Your task to perform on an android device: Play the new Selena Gomez video on YouTube Image 0: 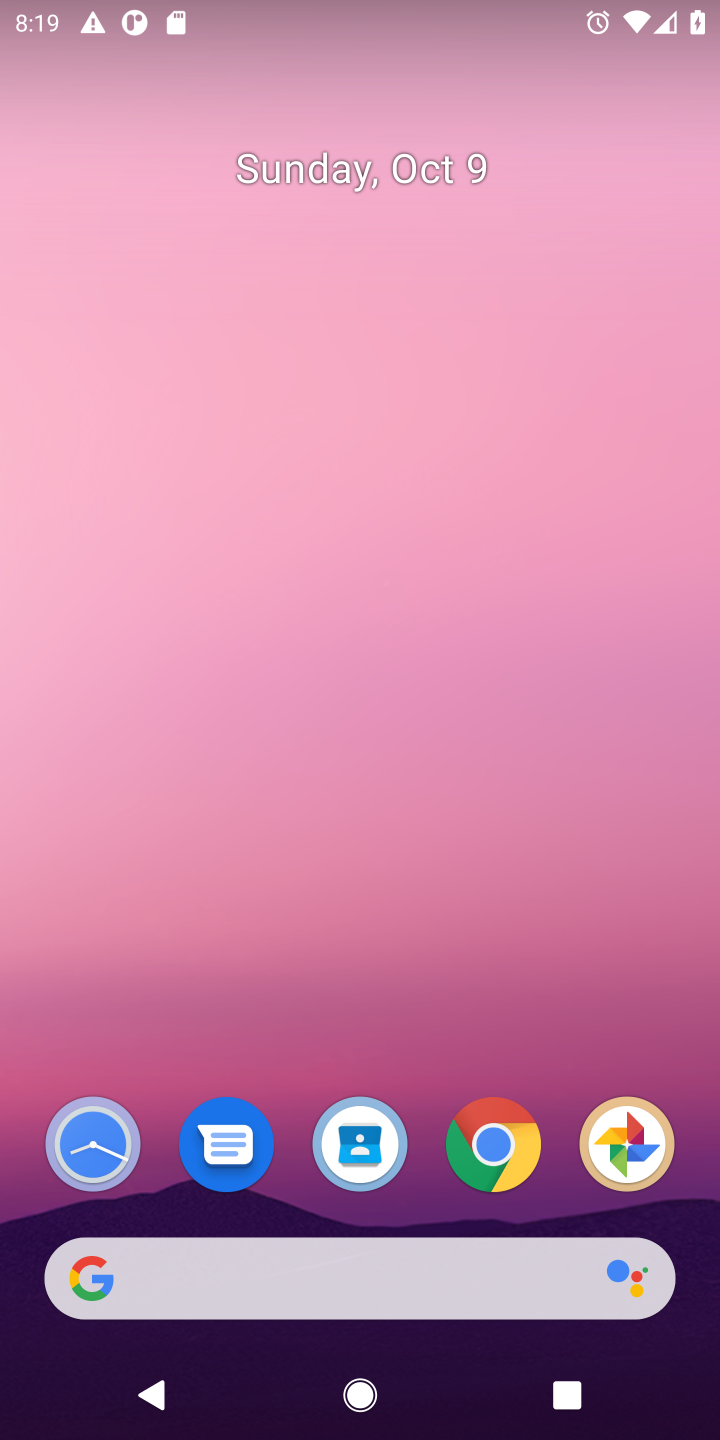
Step 0: press home button
Your task to perform on an android device: Play the new Selena Gomez video on YouTube Image 1: 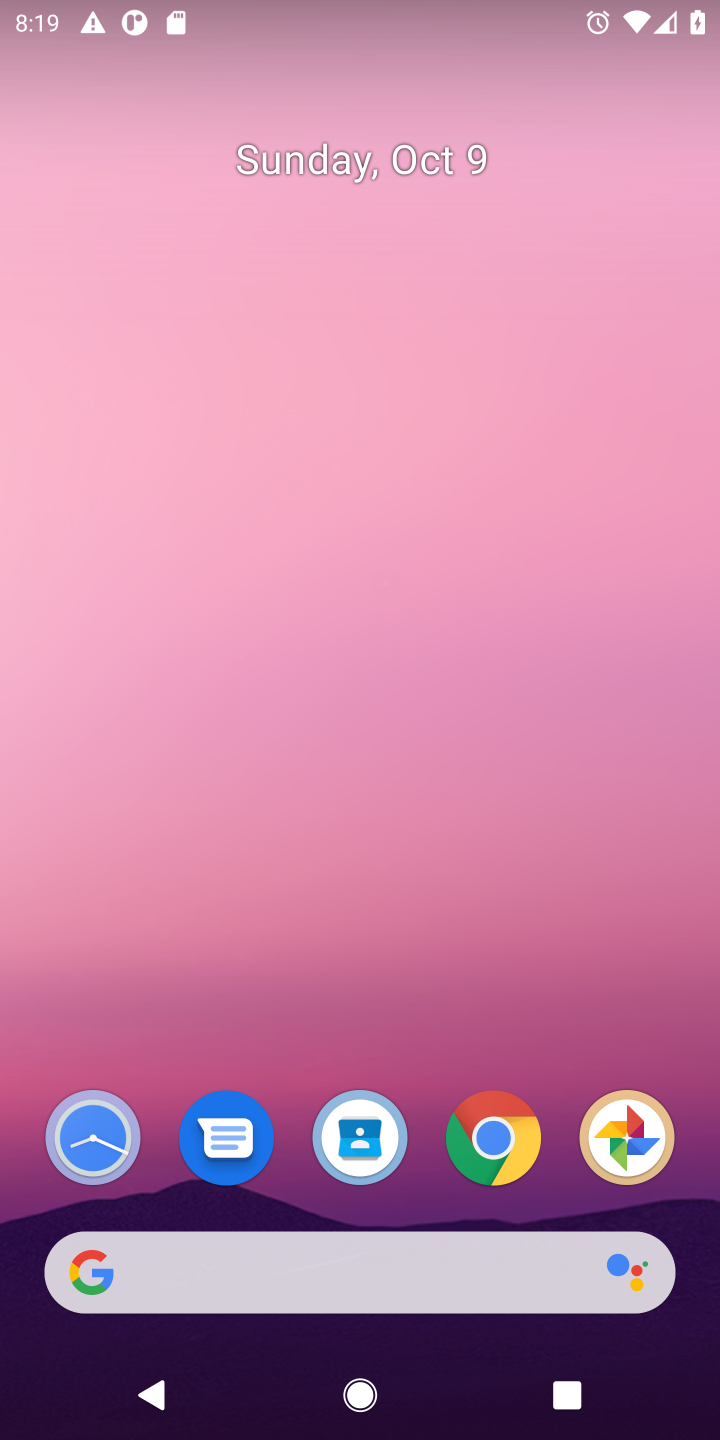
Step 1: drag from (313, 1202) to (332, 417)
Your task to perform on an android device: Play the new Selena Gomez video on YouTube Image 2: 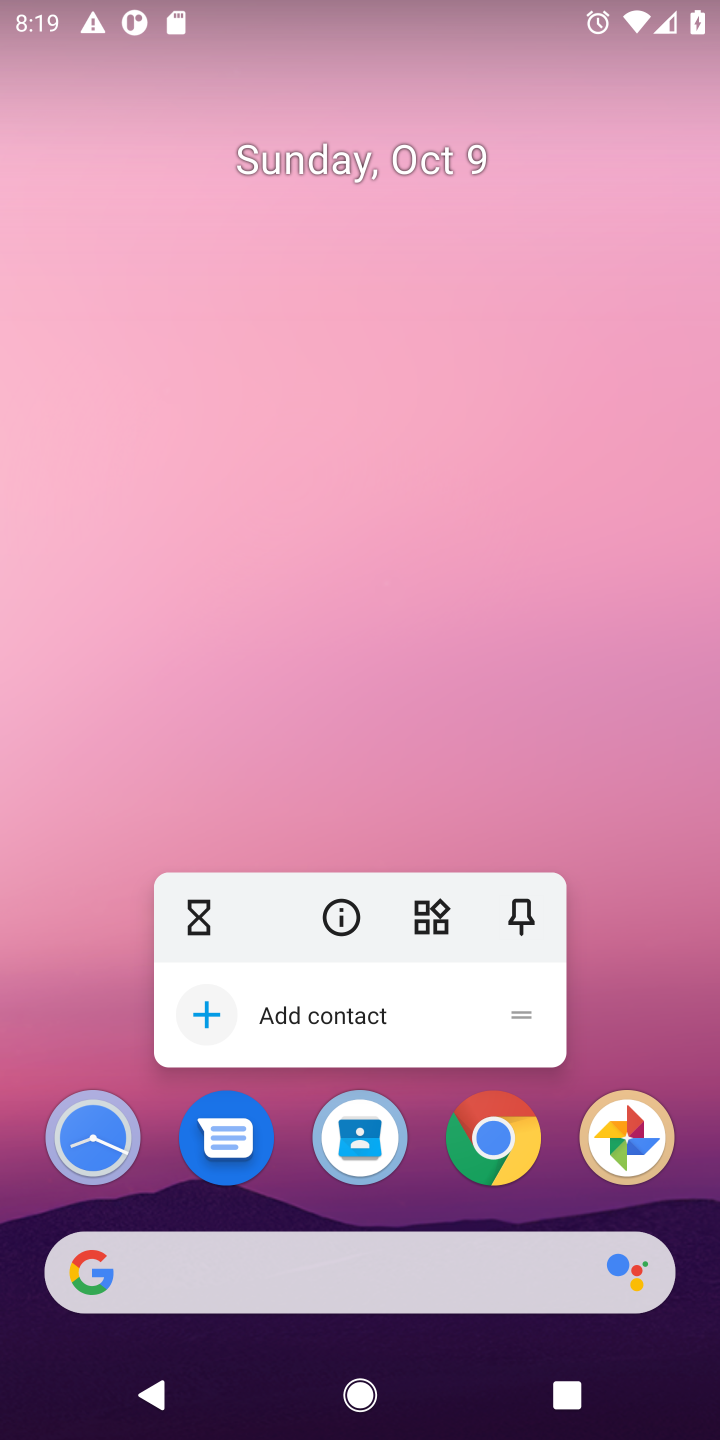
Step 2: click (611, 771)
Your task to perform on an android device: Play the new Selena Gomez video on YouTube Image 3: 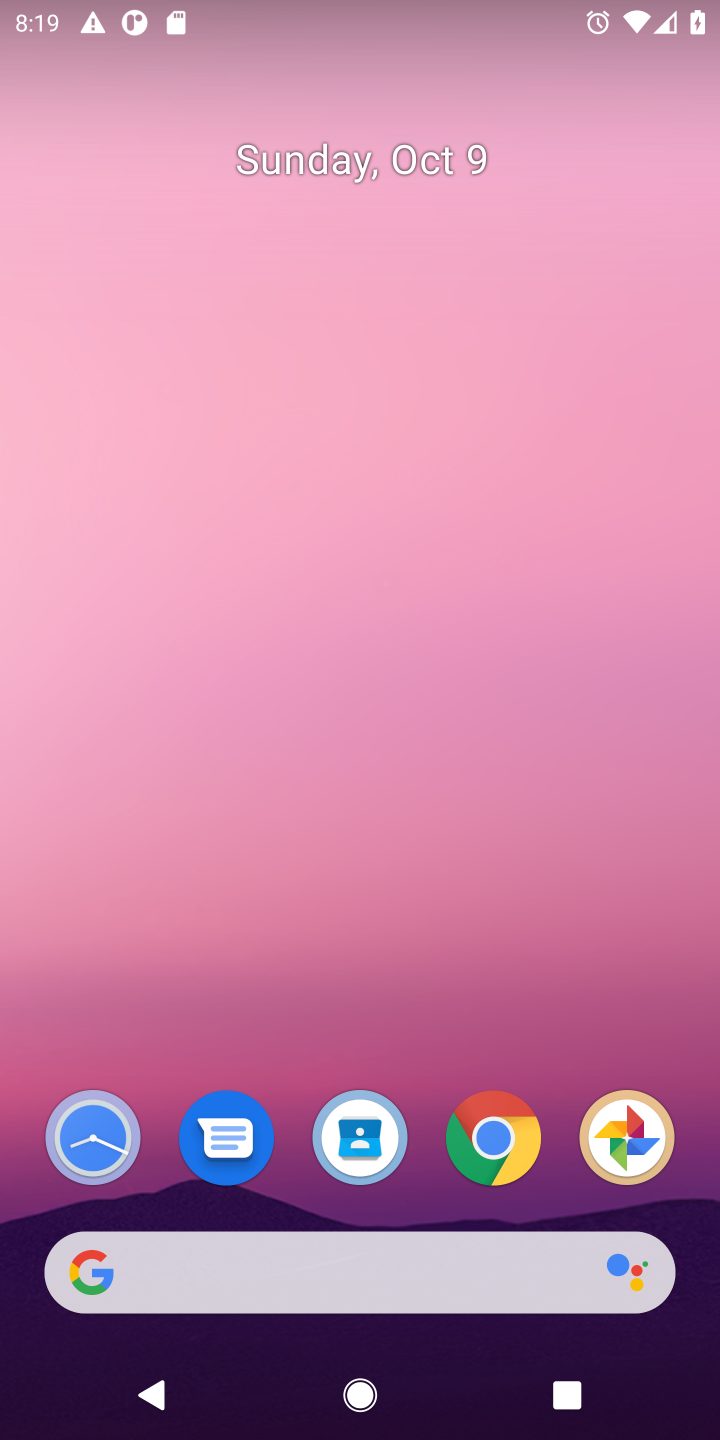
Step 3: drag from (321, 1171) to (332, 592)
Your task to perform on an android device: Play the new Selena Gomez video on YouTube Image 4: 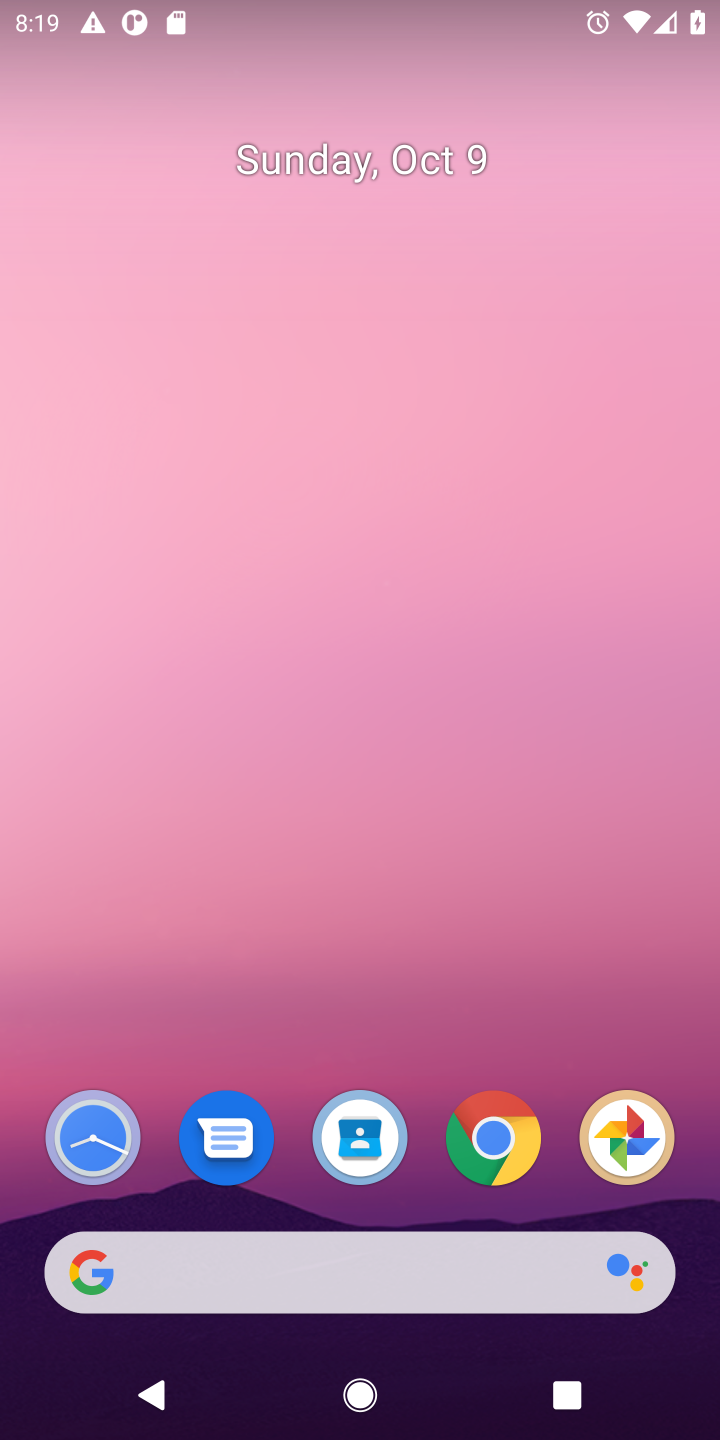
Step 4: drag from (216, 1299) to (243, 188)
Your task to perform on an android device: Play the new Selena Gomez video on YouTube Image 5: 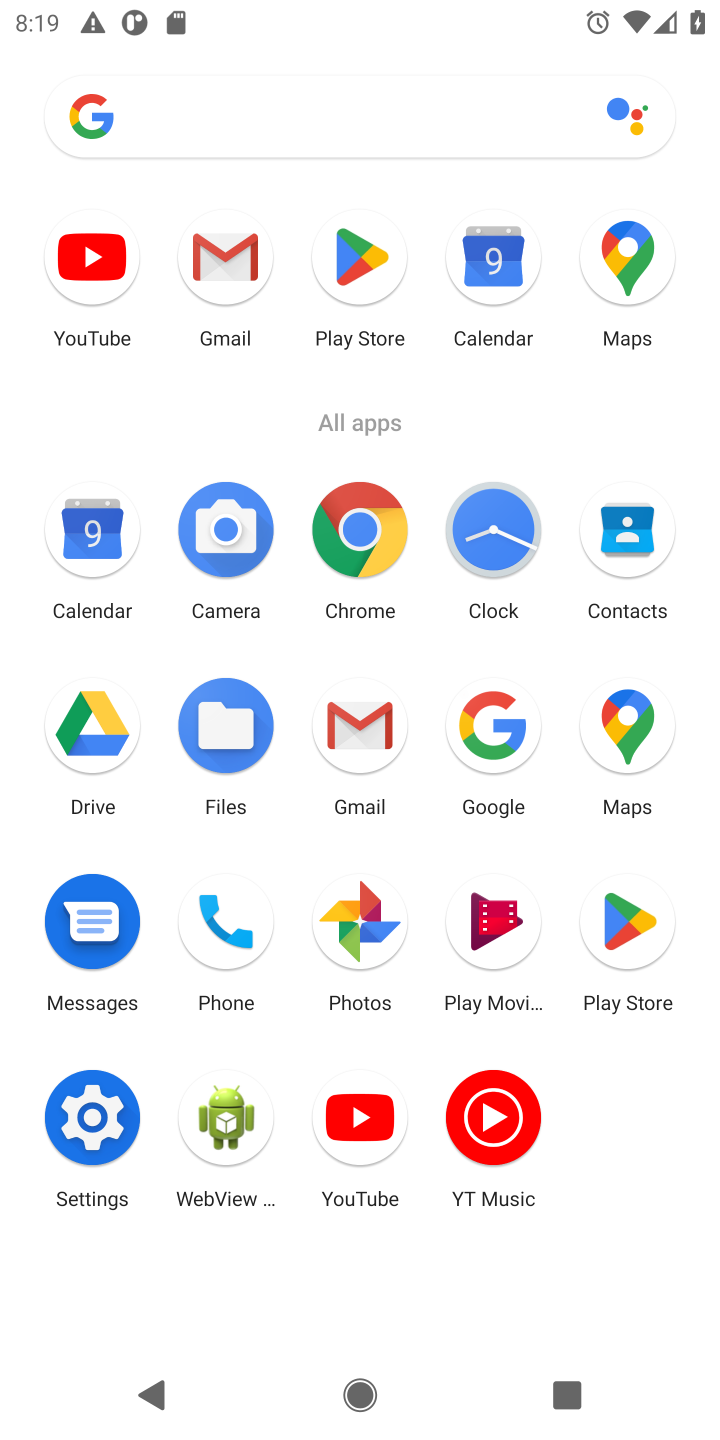
Step 5: click (498, 698)
Your task to perform on an android device: Play the new Selena Gomez video on YouTube Image 6: 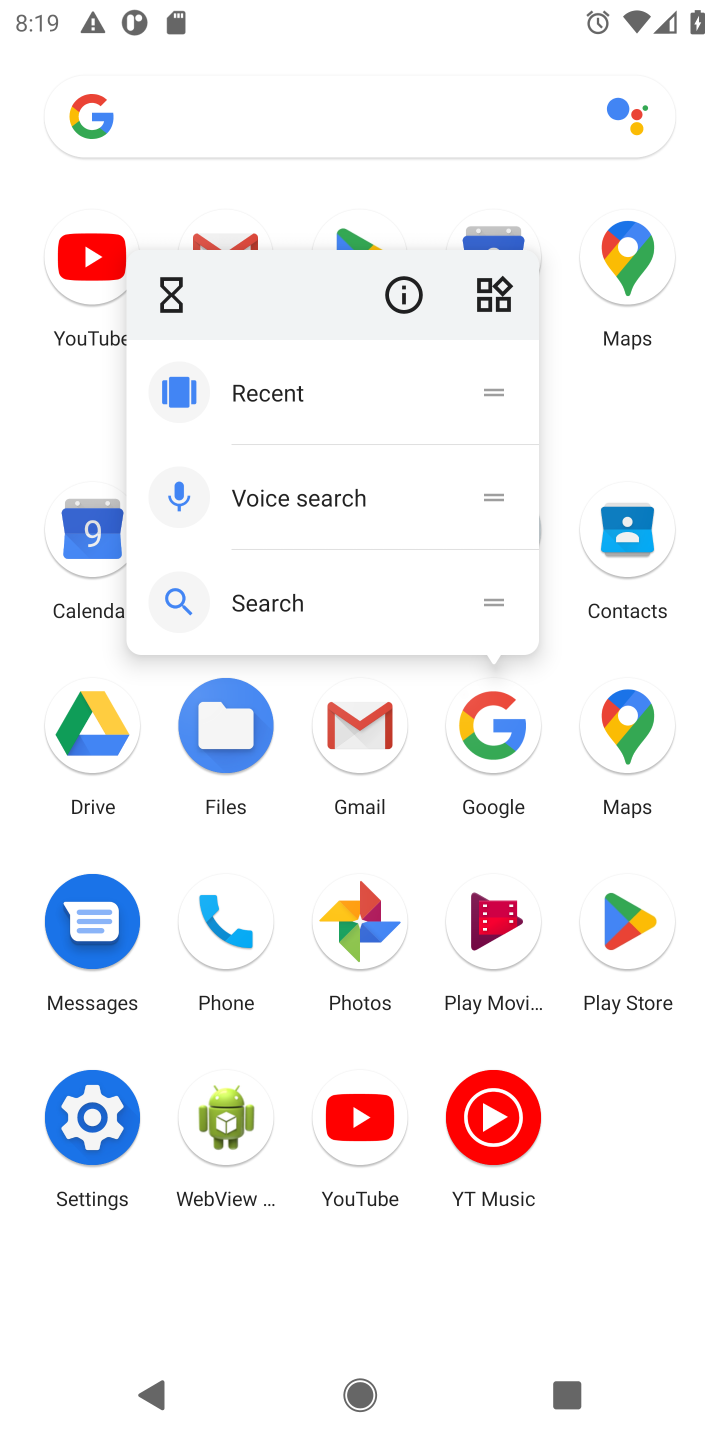
Step 6: click (498, 709)
Your task to perform on an android device: Play the new Selena Gomez video on YouTube Image 7: 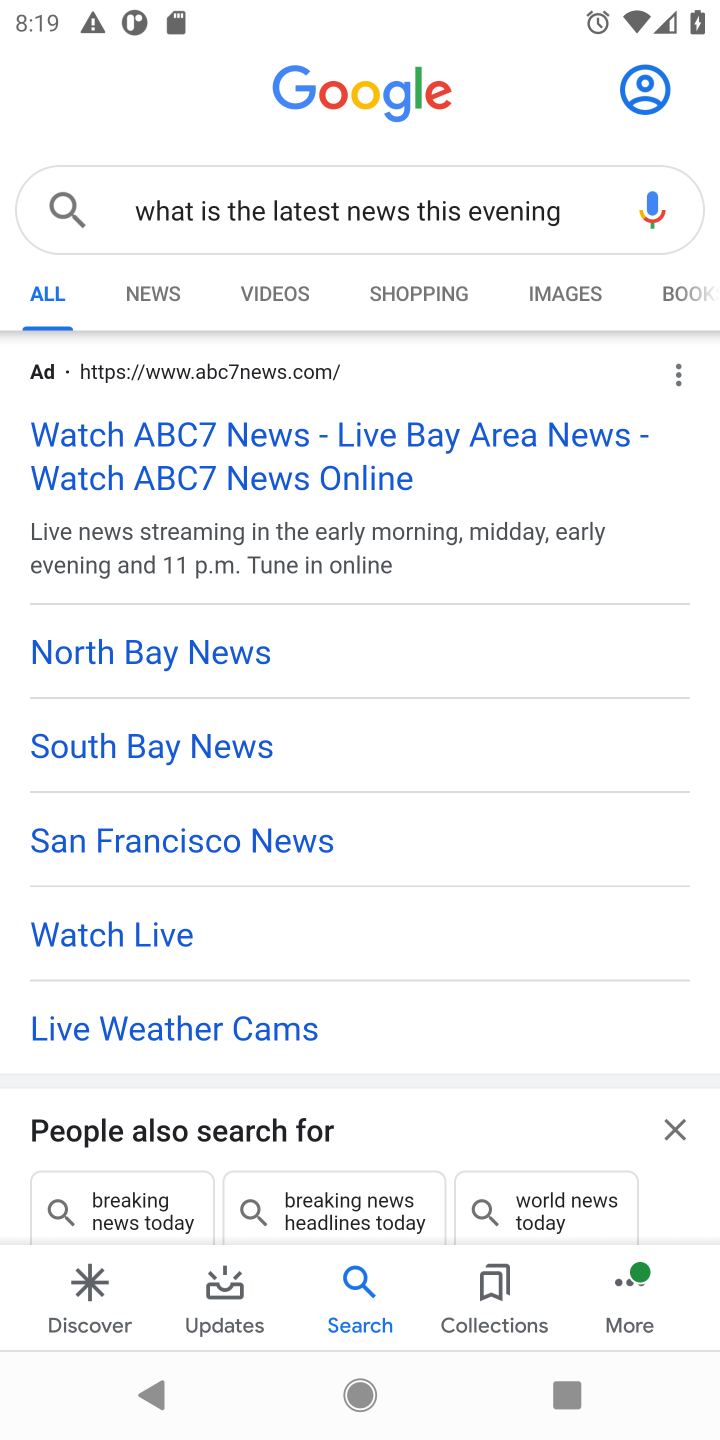
Step 7: click (401, 187)
Your task to perform on an android device: Play the new Selena Gomez video on YouTube Image 8: 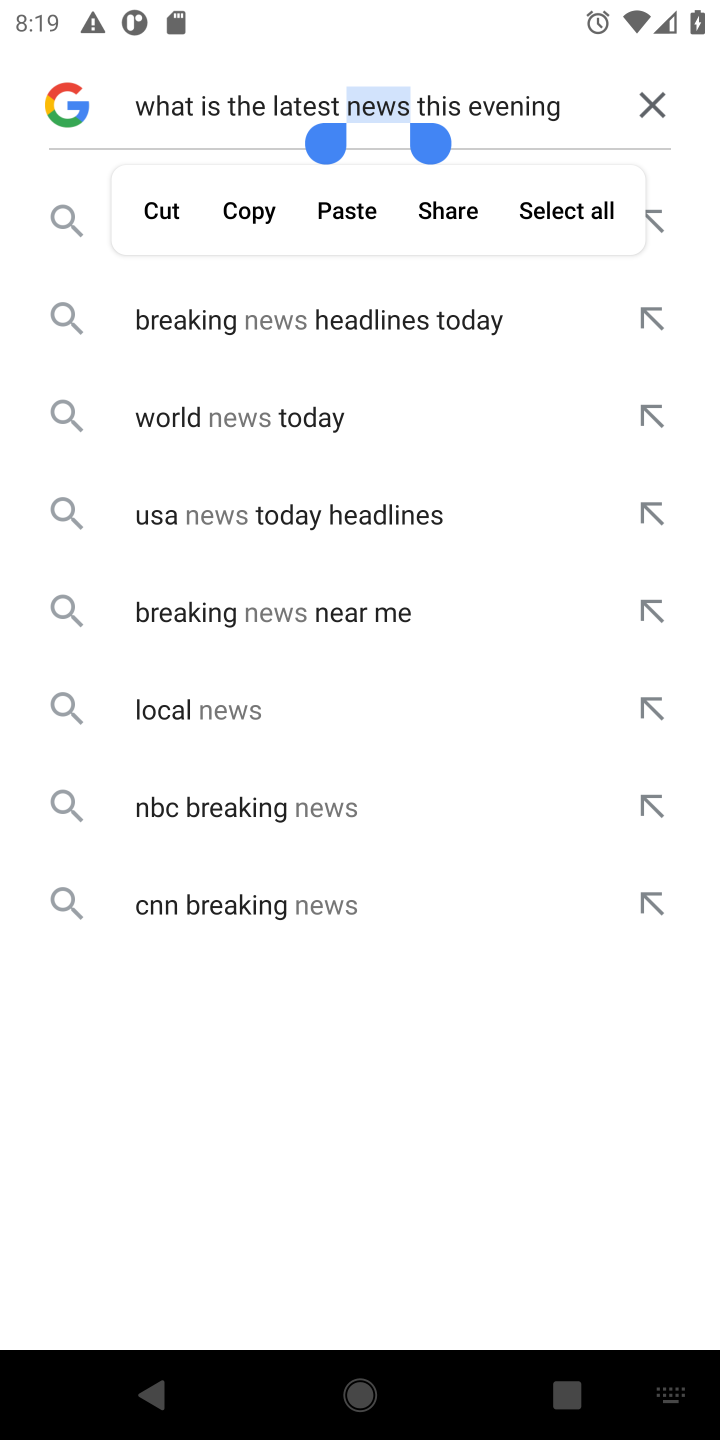
Step 8: click (642, 108)
Your task to perform on an android device: Play the new Selena Gomez video on YouTube Image 9: 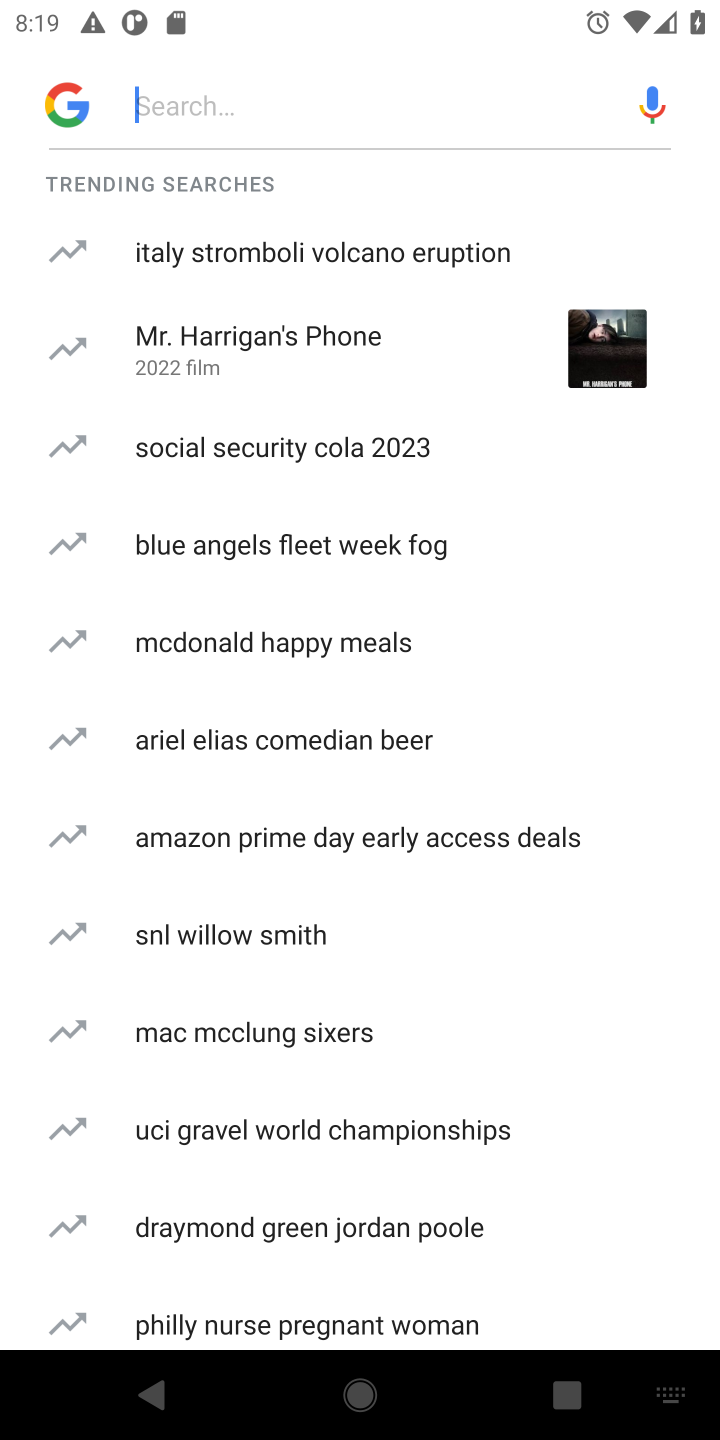
Step 9: click (226, 105)
Your task to perform on an android device: Play the new Selena Gomez video on YouTube Image 10: 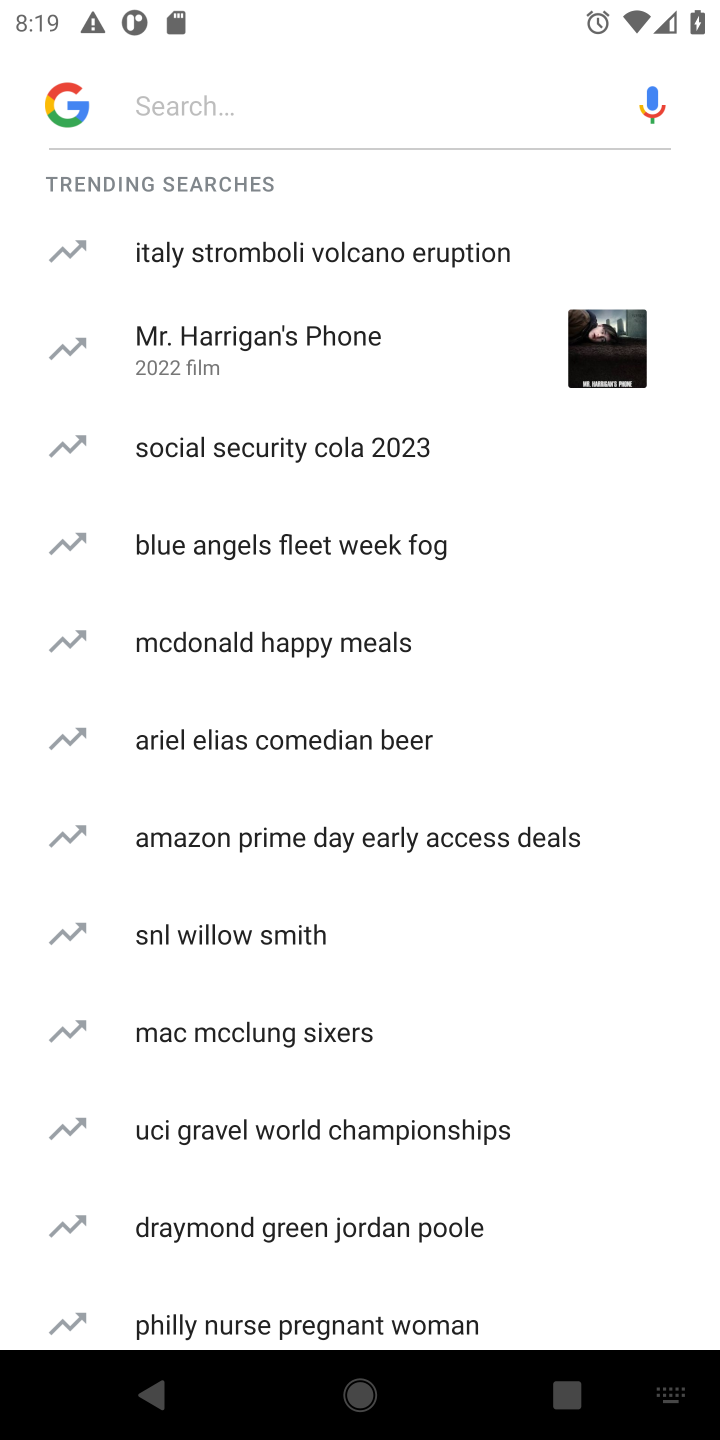
Step 10: type "Play the new Selena Gomez video on YouTube "
Your task to perform on an android device: Play the new Selena Gomez video on YouTube Image 11: 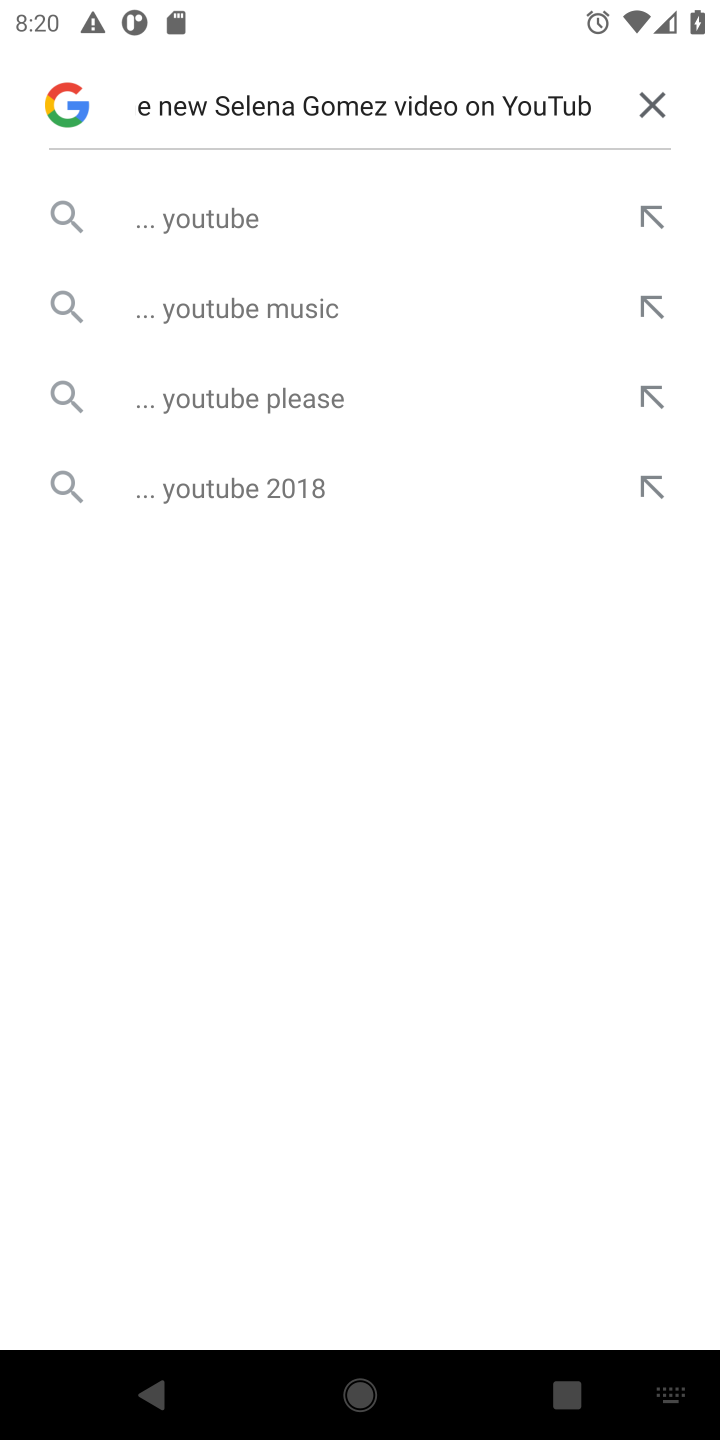
Step 11: click (240, 196)
Your task to perform on an android device: Play the new Selena Gomez video on YouTube Image 12: 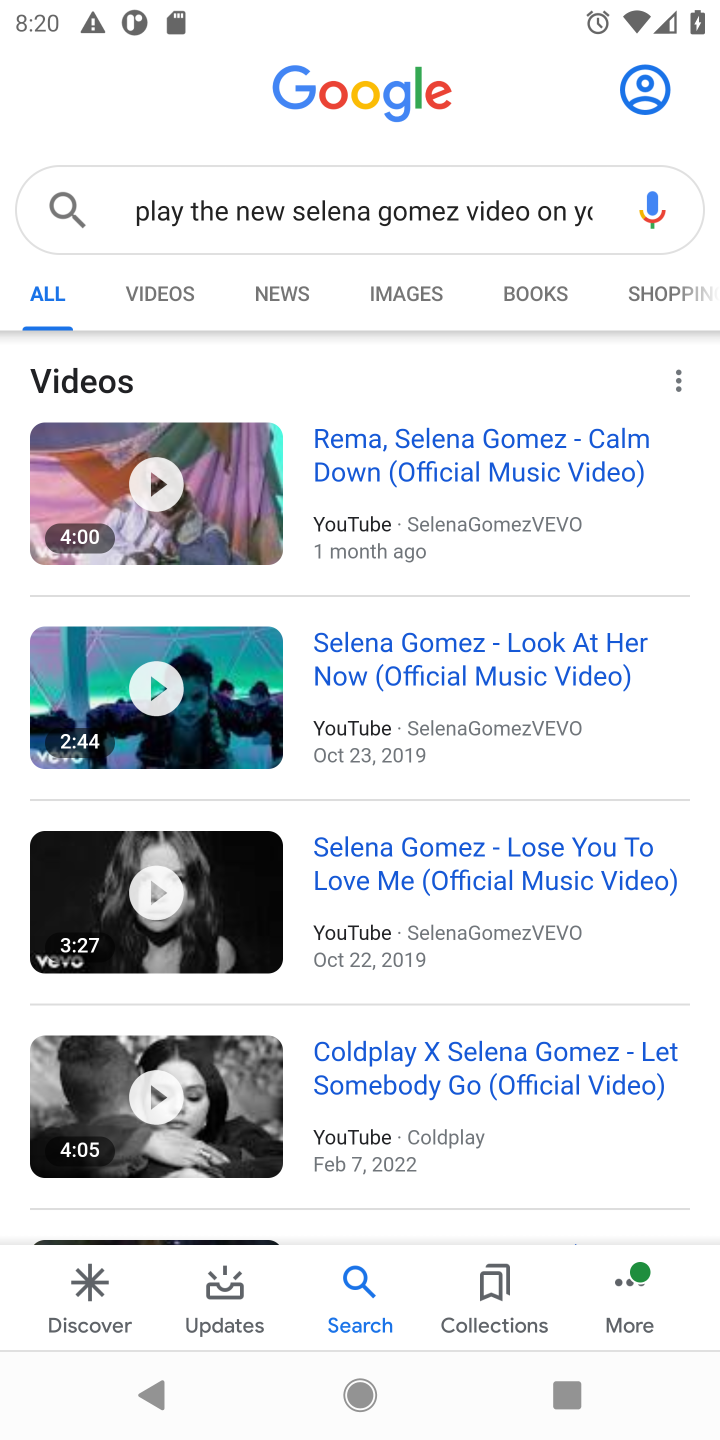
Step 12: task complete